Your task to perform on an android device: Open wifi settings Image 0: 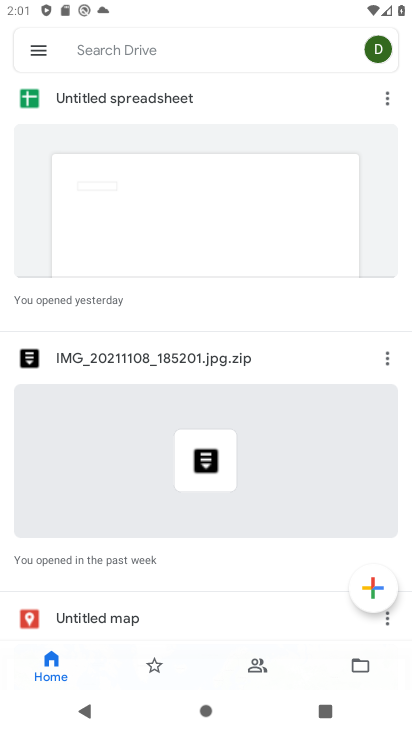
Step 0: press home button
Your task to perform on an android device: Open wifi settings Image 1: 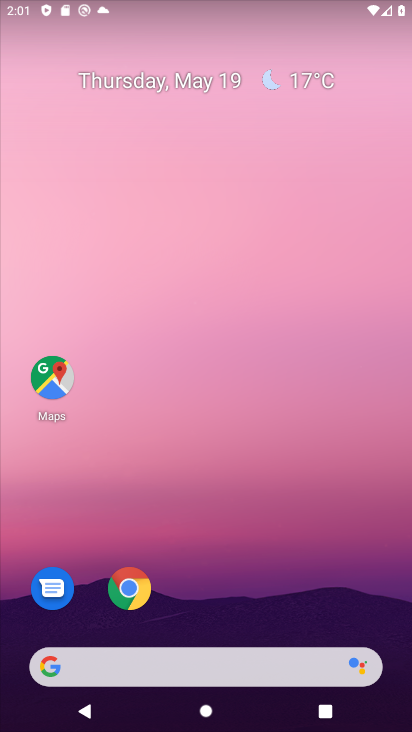
Step 1: drag from (308, 657) to (272, 5)
Your task to perform on an android device: Open wifi settings Image 2: 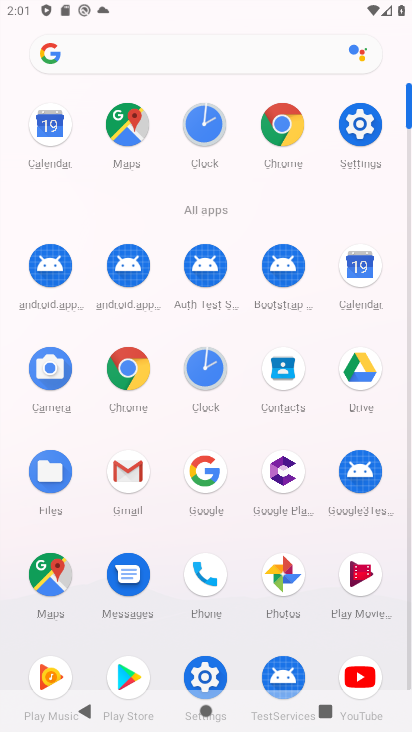
Step 2: click (357, 110)
Your task to perform on an android device: Open wifi settings Image 3: 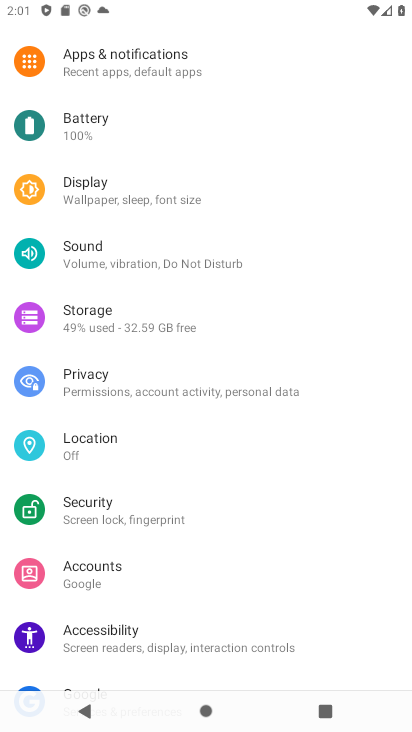
Step 3: drag from (126, 105) to (135, 601)
Your task to perform on an android device: Open wifi settings Image 4: 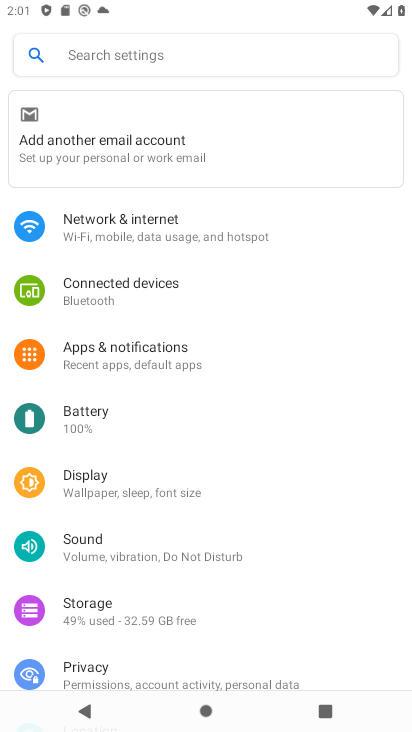
Step 4: click (107, 216)
Your task to perform on an android device: Open wifi settings Image 5: 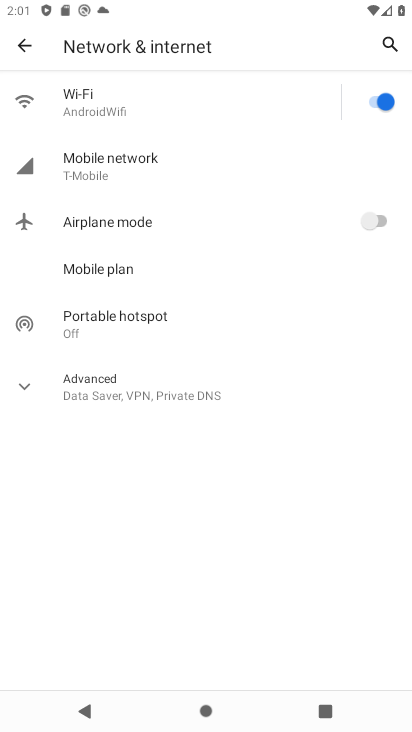
Step 5: click (191, 117)
Your task to perform on an android device: Open wifi settings Image 6: 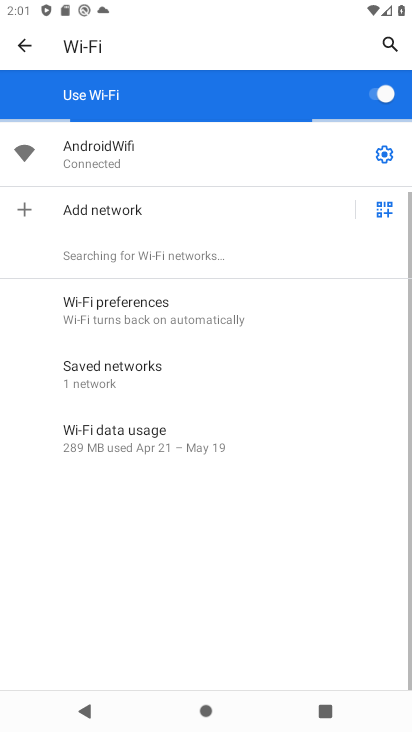
Step 6: click (390, 153)
Your task to perform on an android device: Open wifi settings Image 7: 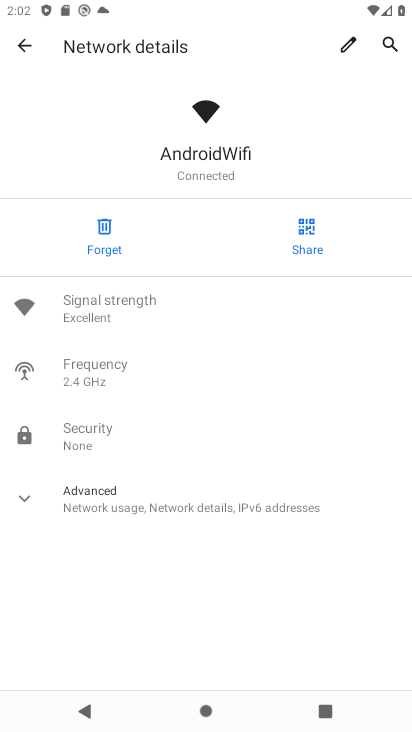
Step 7: task complete